Your task to perform on an android device: toggle notifications settings in the gmail app Image 0: 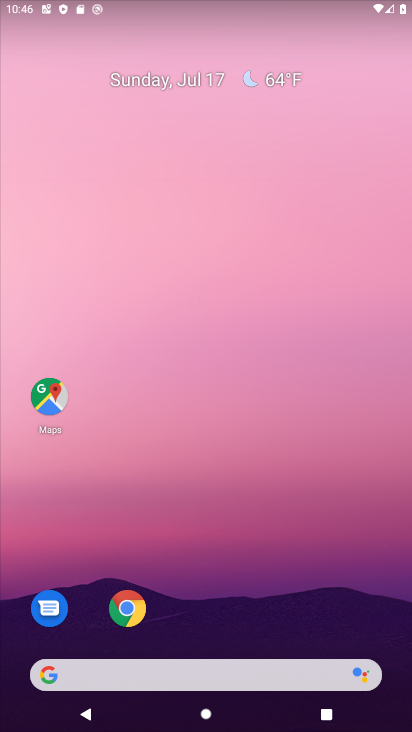
Step 0: drag from (329, 636) to (277, 2)
Your task to perform on an android device: toggle notifications settings in the gmail app Image 1: 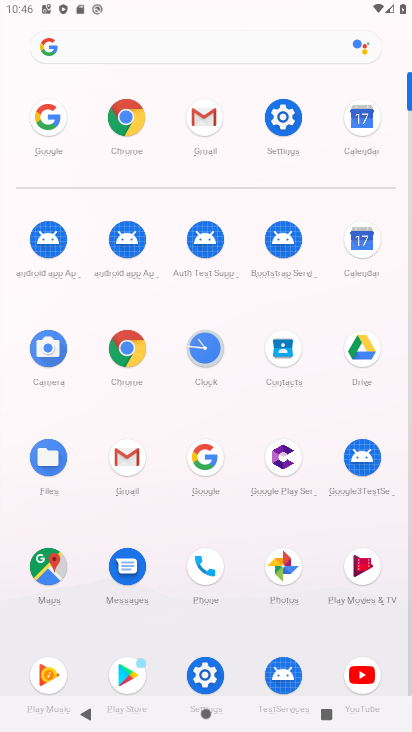
Step 1: click (132, 455)
Your task to perform on an android device: toggle notifications settings in the gmail app Image 2: 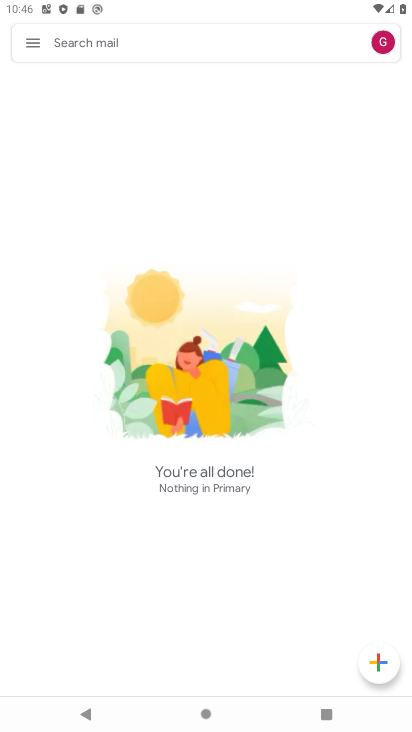
Step 2: click (31, 38)
Your task to perform on an android device: toggle notifications settings in the gmail app Image 3: 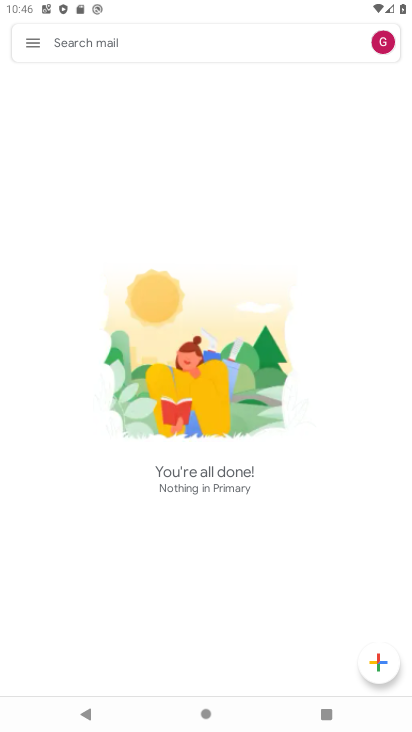
Step 3: drag from (342, 368) to (31, 38)
Your task to perform on an android device: toggle notifications settings in the gmail app Image 4: 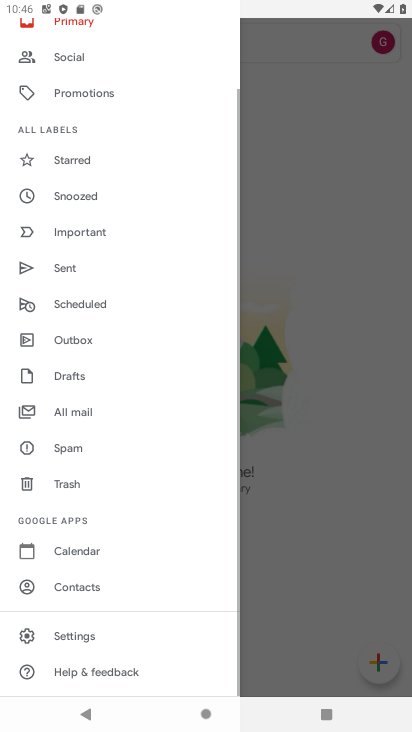
Step 4: click (87, 639)
Your task to perform on an android device: toggle notifications settings in the gmail app Image 5: 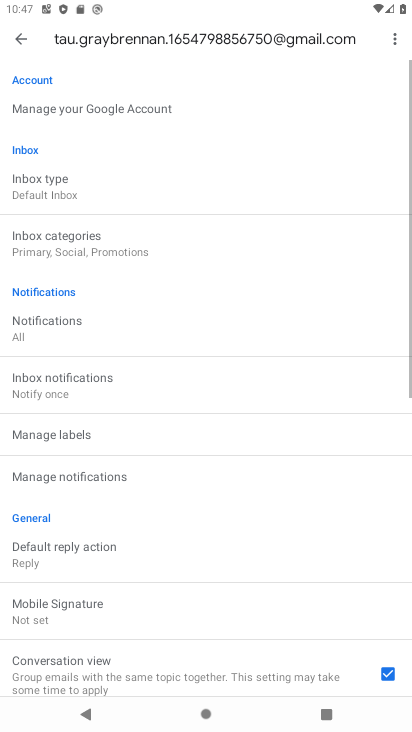
Step 5: click (93, 313)
Your task to perform on an android device: toggle notifications settings in the gmail app Image 6: 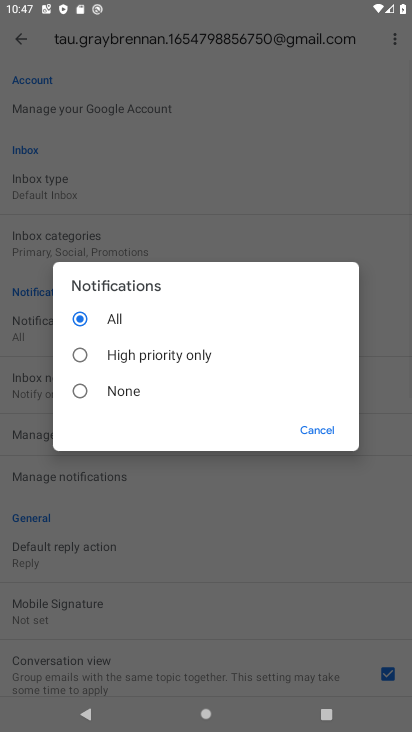
Step 6: click (101, 391)
Your task to perform on an android device: toggle notifications settings in the gmail app Image 7: 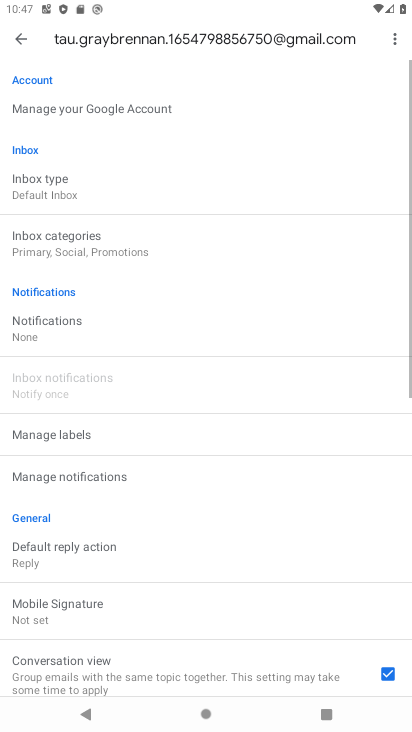
Step 7: task complete